Your task to perform on an android device: Open Reddit.com Image 0: 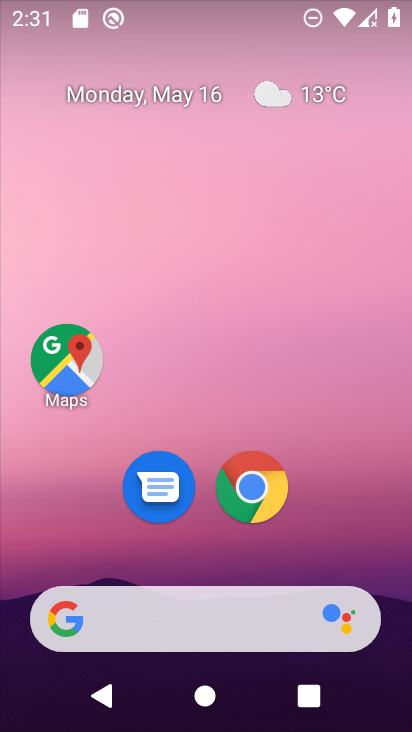
Step 0: click (263, 488)
Your task to perform on an android device: Open Reddit.com Image 1: 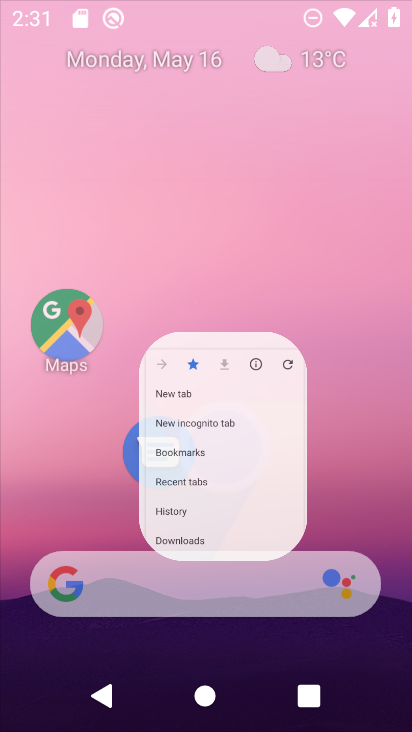
Step 1: click (243, 497)
Your task to perform on an android device: Open Reddit.com Image 2: 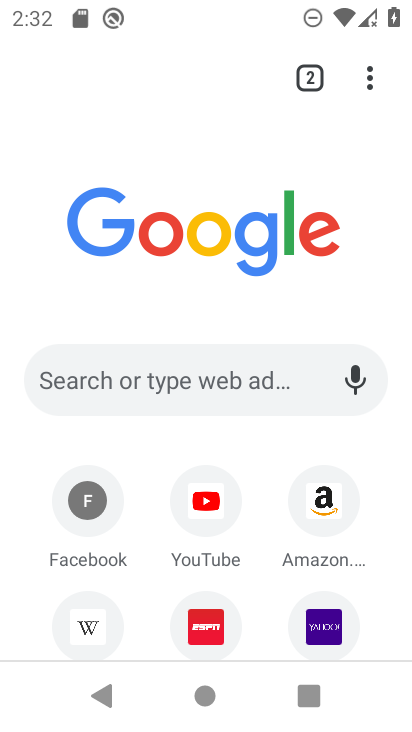
Step 2: click (243, 371)
Your task to perform on an android device: Open Reddit.com Image 3: 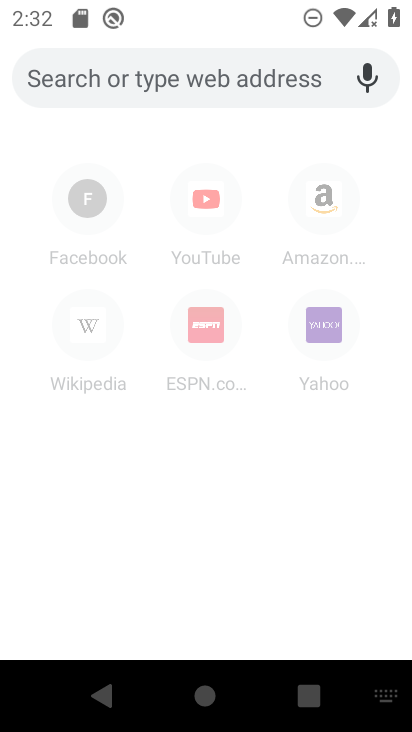
Step 3: type "Reddit.com"
Your task to perform on an android device: Open Reddit.com Image 4: 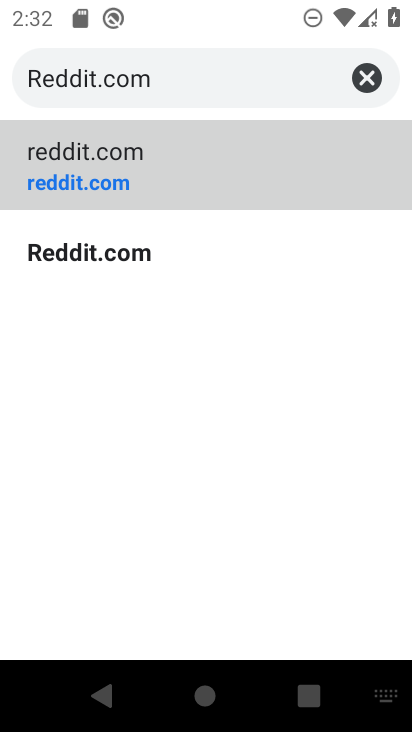
Step 4: click (108, 263)
Your task to perform on an android device: Open Reddit.com Image 5: 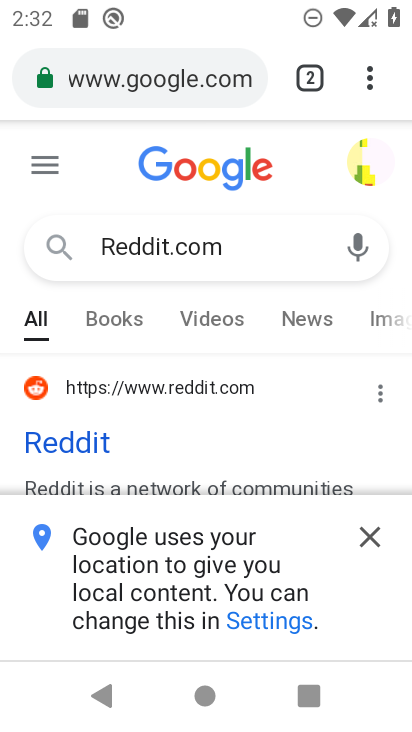
Step 5: task complete